Your task to perform on an android device: Go to wifi settings Image 0: 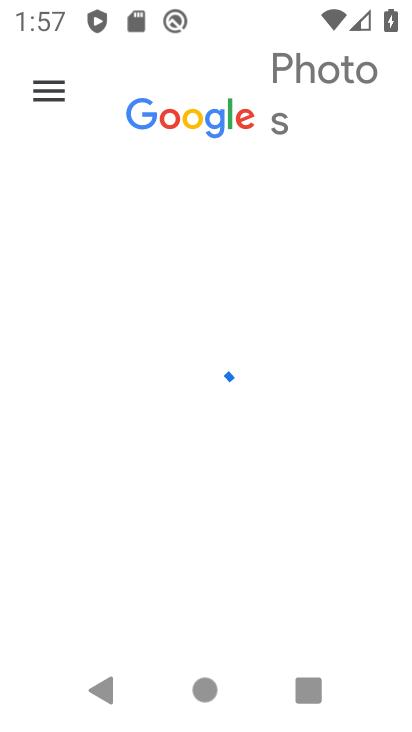
Step 0: press home button
Your task to perform on an android device: Go to wifi settings Image 1: 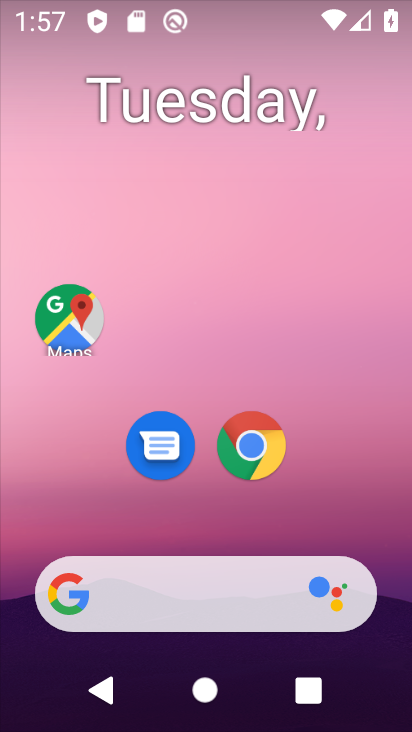
Step 1: drag from (83, 551) to (284, 16)
Your task to perform on an android device: Go to wifi settings Image 2: 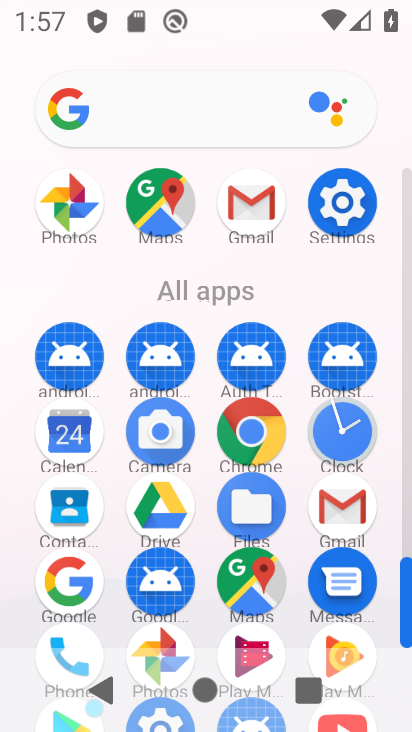
Step 2: drag from (187, 565) to (230, 348)
Your task to perform on an android device: Go to wifi settings Image 3: 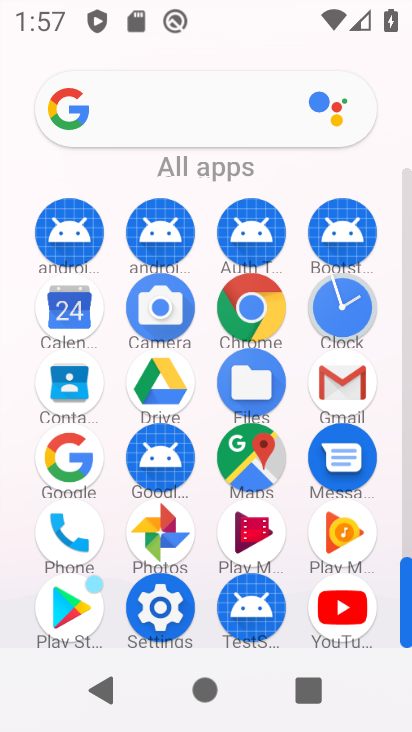
Step 3: click (163, 597)
Your task to perform on an android device: Go to wifi settings Image 4: 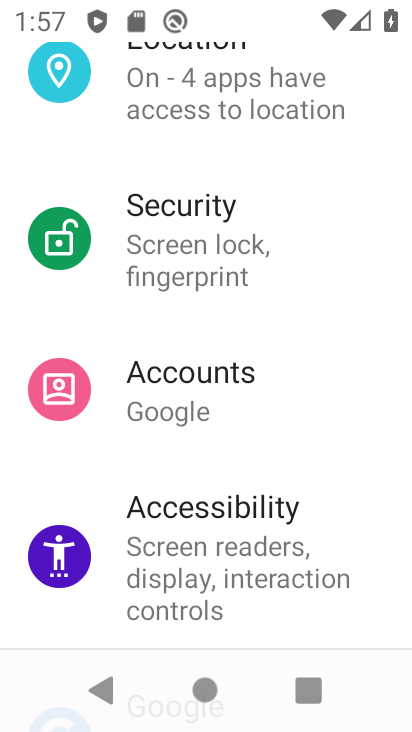
Step 4: drag from (241, 146) to (238, 586)
Your task to perform on an android device: Go to wifi settings Image 5: 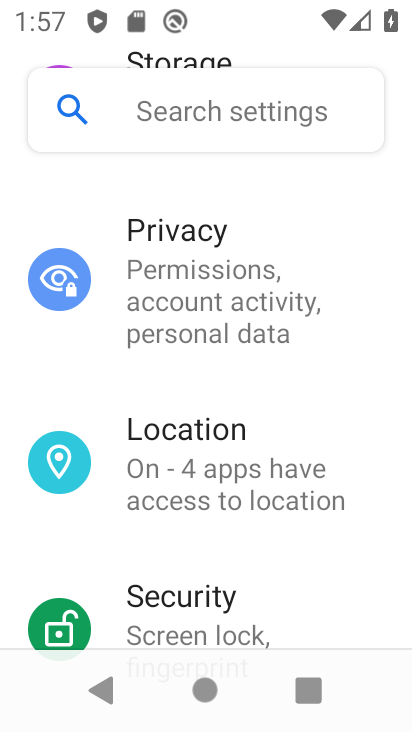
Step 5: drag from (237, 247) to (237, 667)
Your task to perform on an android device: Go to wifi settings Image 6: 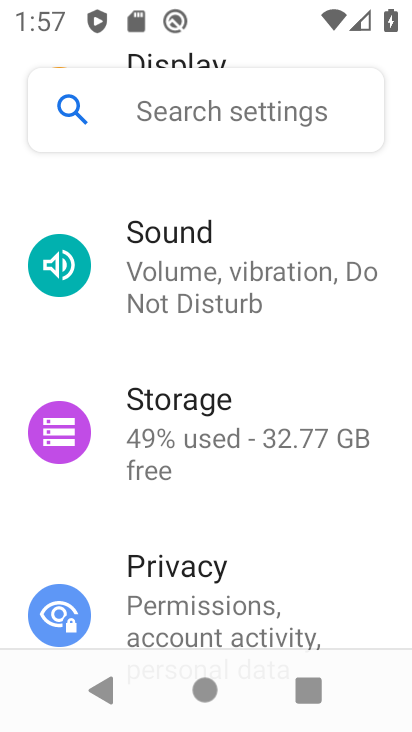
Step 6: drag from (319, 205) to (293, 699)
Your task to perform on an android device: Go to wifi settings Image 7: 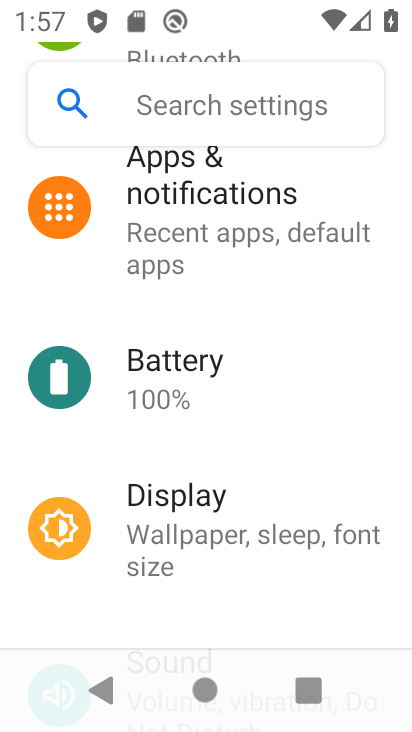
Step 7: drag from (281, 249) to (268, 701)
Your task to perform on an android device: Go to wifi settings Image 8: 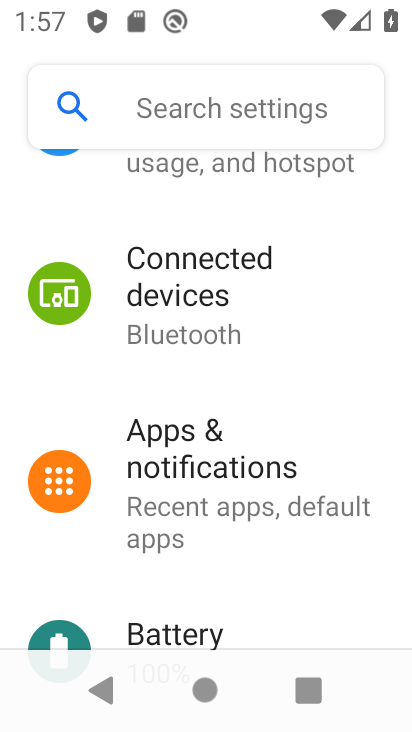
Step 8: drag from (262, 249) to (251, 637)
Your task to perform on an android device: Go to wifi settings Image 9: 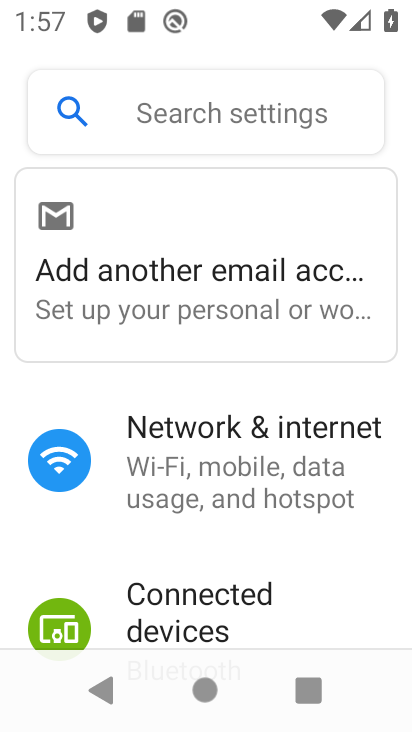
Step 9: click (215, 451)
Your task to perform on an android device: Go to wifi settings Image 10: 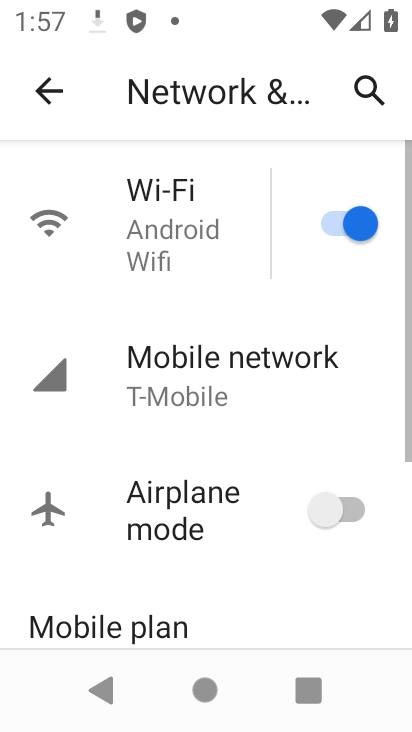
Step 10: click (167, 270)
Your task to perform on an android device: Go to wifi settings Image 11: 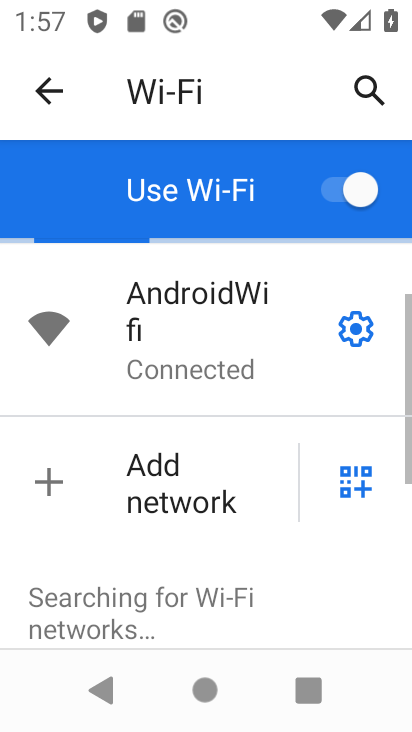
Step 11: task complete